Your task to perform on an android device: toggle improve location accuracy Image 0: 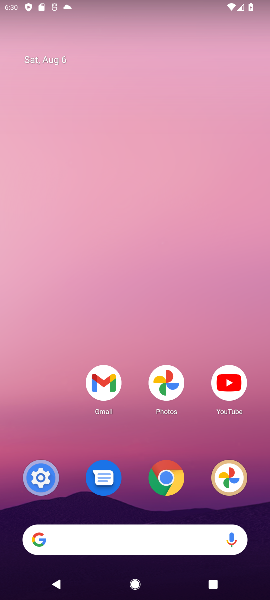
Step 0: press home button
Your task to perform on an android device: toggle improve location accuracy Image 1: 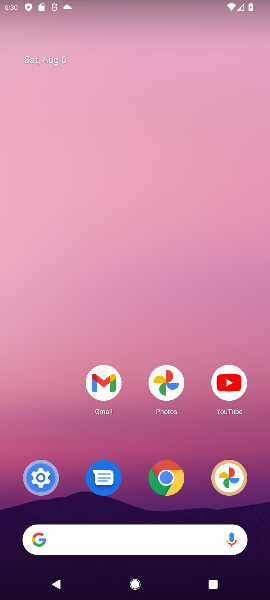
Step 1: press home button
Your task to perform on an android device: toggle improve location accuracy Image 2: 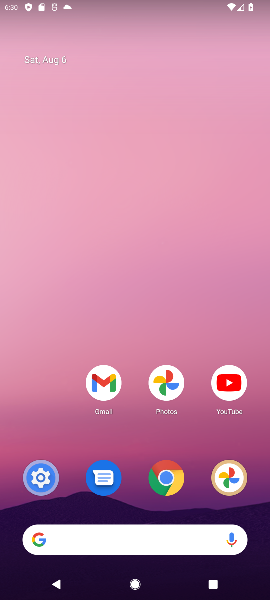
Step 2: drag from (164, 316) to (147, 73)
Your task to perform on an android device: toggle improve location accuracy Image 3: 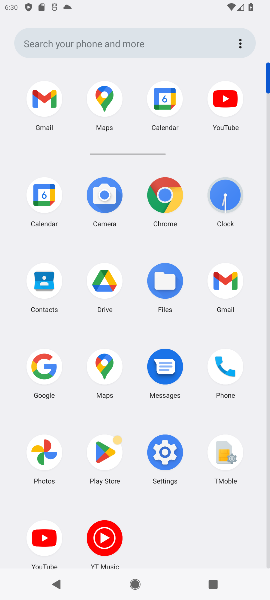
Step 3: click (171, 445)
Your task to perform on an android device: toggle improve location accuracy Image 4: 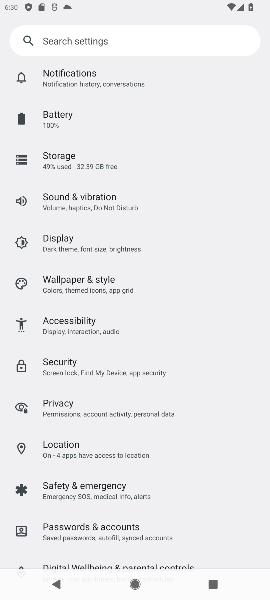
Step 4: click (122, 455)
Your task to perform on an android device: toggle improve location accuracy Image 5: 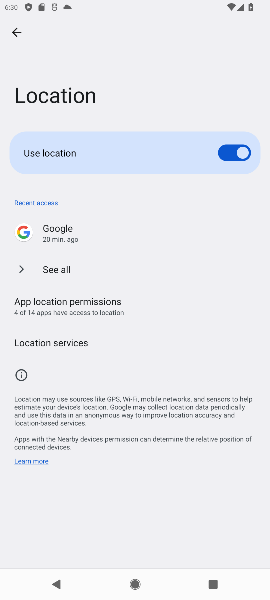
Step 5: click (18, 339)
Your task to perform on an android device: toggle improve location accuracy Image 6: 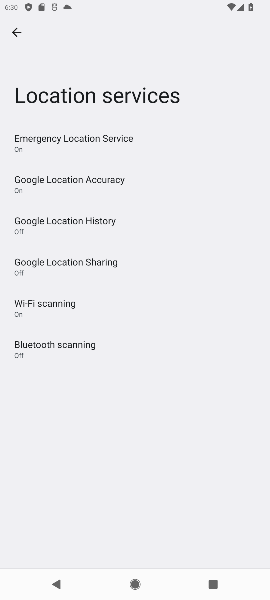
Step 6: click (108, 183)
Your task to perform on an android device: toggle improve location accuracy Image 7: 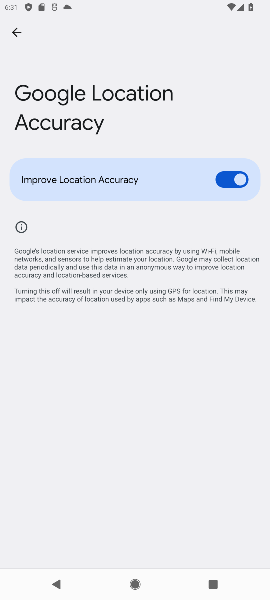
Step 7: click (235, 186)
Your task to perform on an android device: toggle improve location accuracy Image 8: 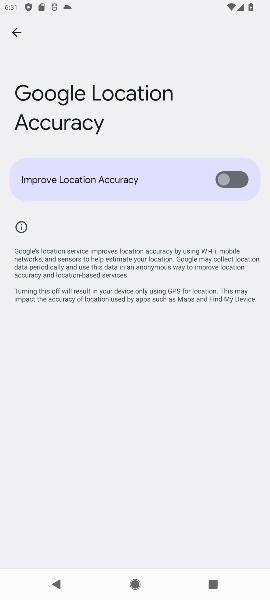
Step 8: task complete